Your task to perform on an android device: Go to ESPN.com Image 0: 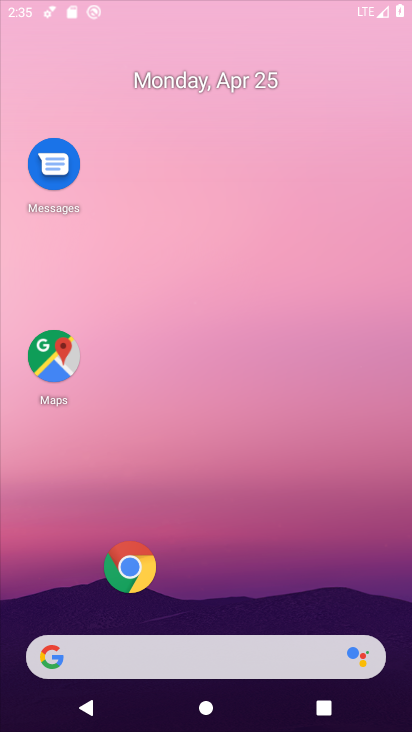
Step 0: click (268, 176)
Your task to perform on an android device: Go to ESPN.com Image 1: 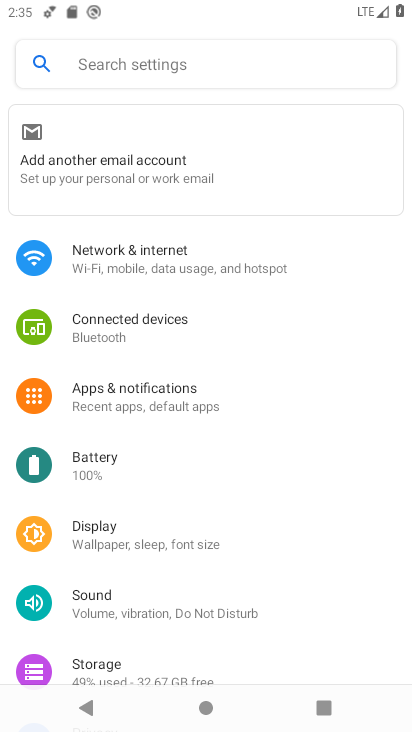
Step 1: press home button
Your task to perform on an android device: Go to ESPN.com Image 2: 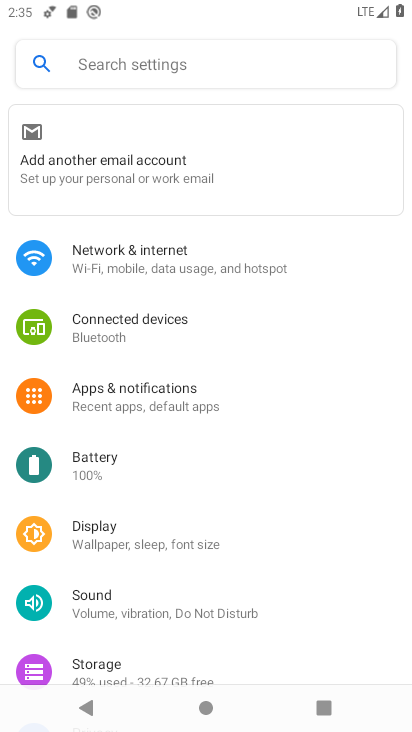
Step 2: press home button
Your task to perform on an android device: Go to ESPN.com Image 3: 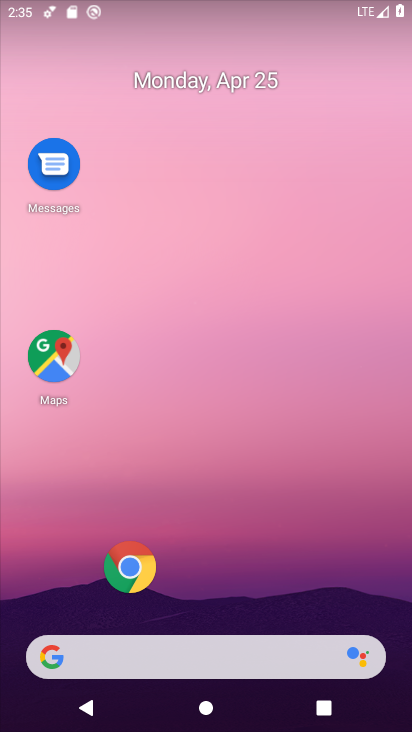
Step 3: drag from (225, 424) to (240, 170)
Your task to perform on an android device: Go to ESPN.com Image 4: 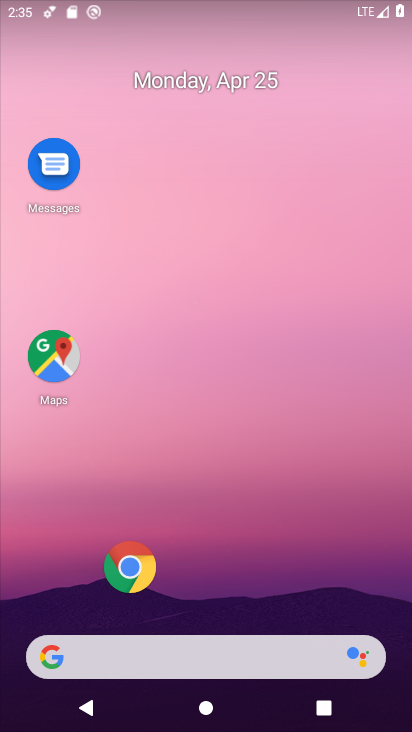
Step 4: click (146, 574)
Your task to perform on an android device: Go to ESPN.com Image 5: 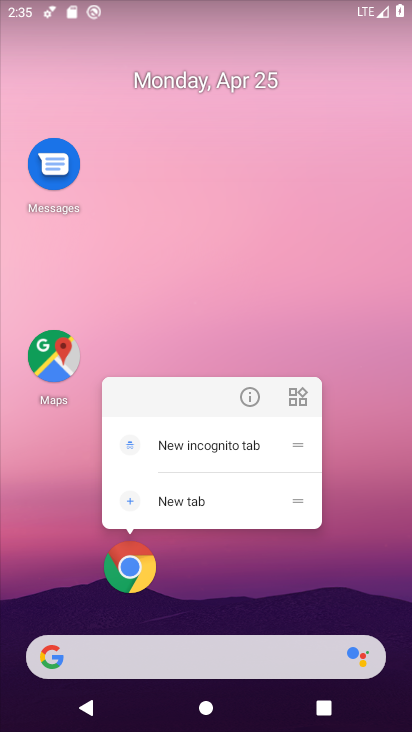
Step 5: click (144, 574)
Your task to perform on an android device: Go to ESPN.com Image 6: 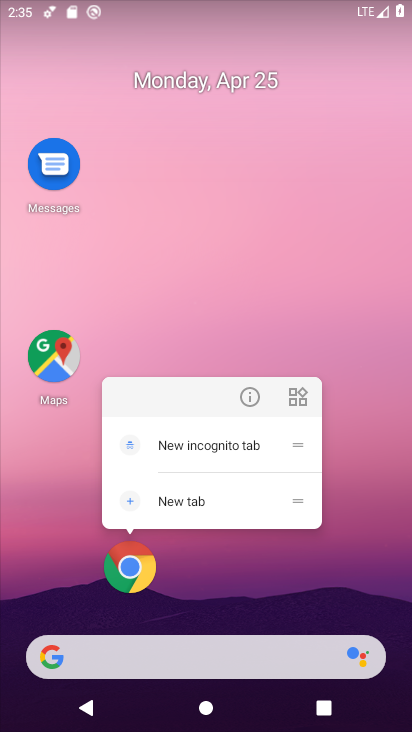
Step 6: click (144, 574)
Your task to perform on an android device: Go to ESPN.com Image 7: 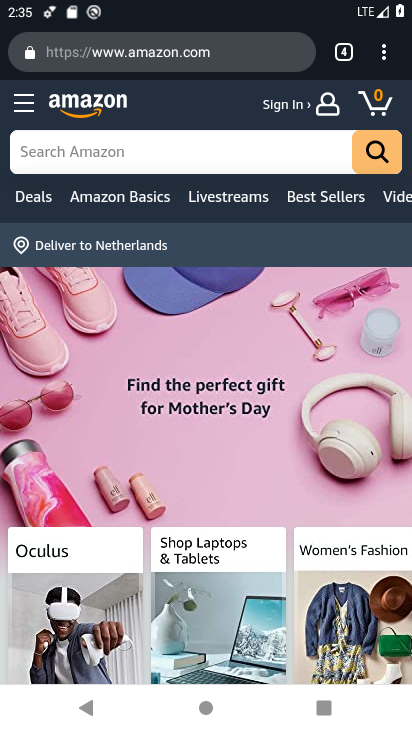
Step 7: click (187, 49)
Your task to perform on an android device: Go to ESPN.com Image 8: 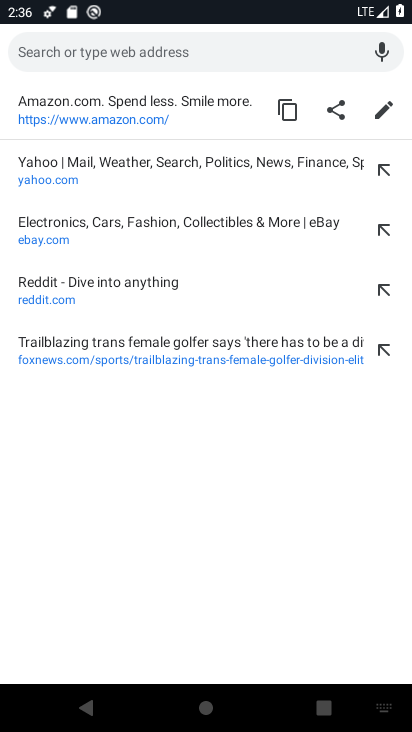
Step 8: type "espn"
Your task to perform on an android device: Go to ESPN.com Image 9: 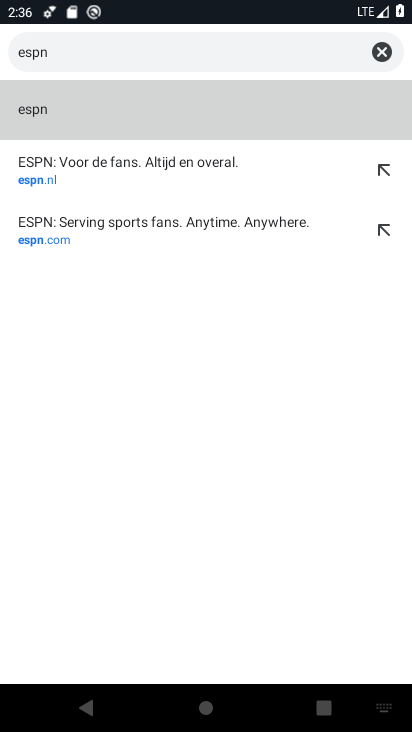
Step 9: click (197, 233)
Your task to perform on an android device: Go to ESPN.com Image 10: 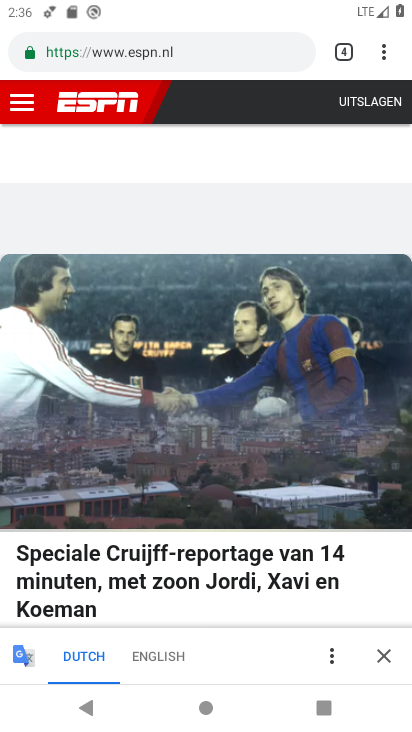
Step 10: task complete